Your task to perform on an android device: Open calendar and show me the first week of next month Image 0: 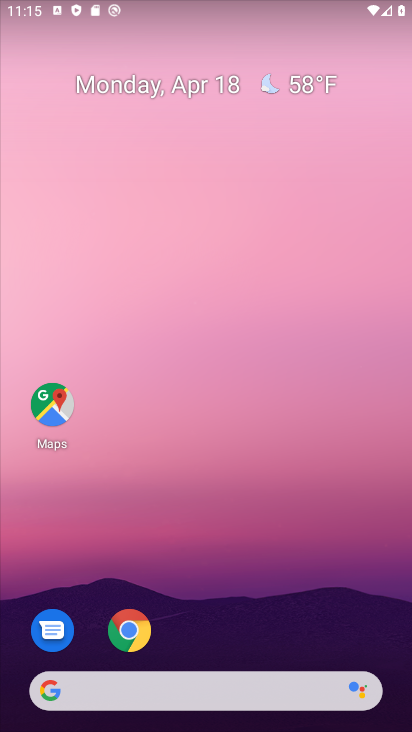
Step 0: drag from (227, 320) to (218, 156)
Your task to perform on an android device: Open calendar and show me the first week of next month Image 1: 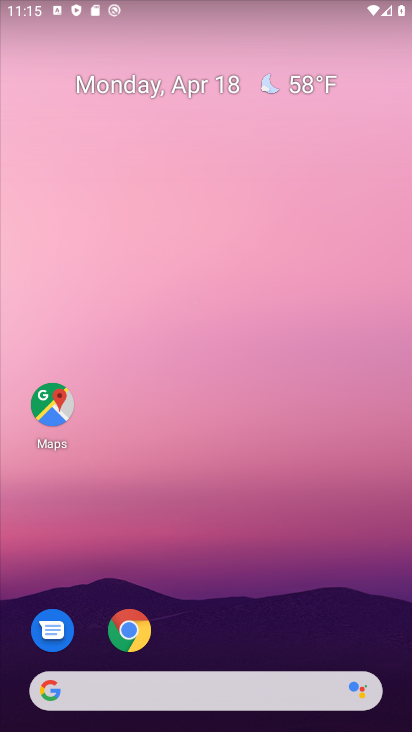
Step 1: drag from (236, 631) to (209, 184)
Your task to perform on an android device: Open calendar and show me the first week of next month Image 2: 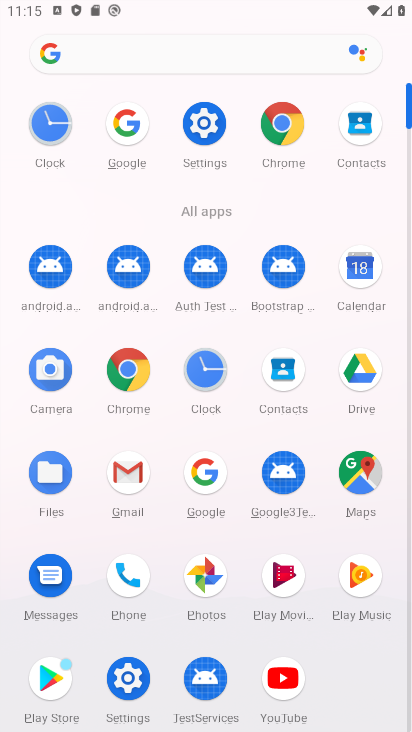
Step 2: click (358, 266)
Your task to perform on an android device: Open calendar and show me the first week of next month Image 3: 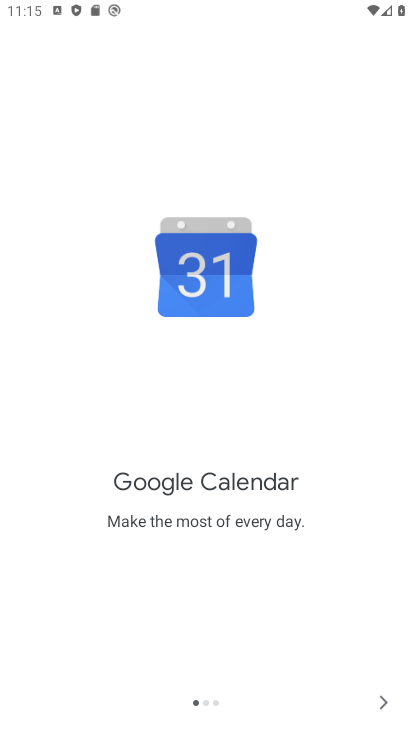
Step 3: click (383, 711)
Your task to perform on an android device: Open calendar and show me the first week of next month Image 4: 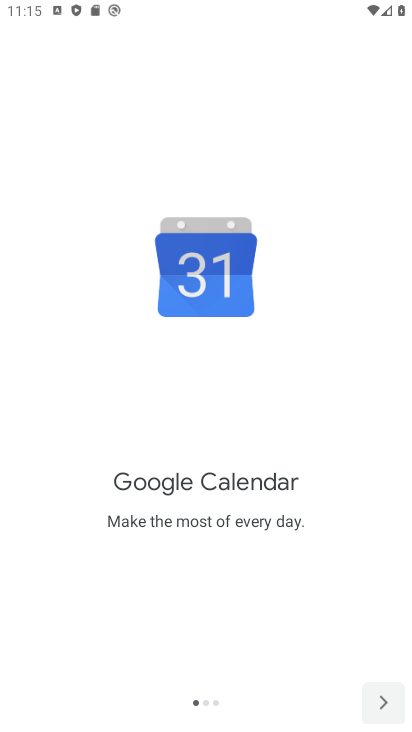
Step 4: click (383, 711)
Your task to perform on an android device: Open calendar and show me the first week of next month Image 5: 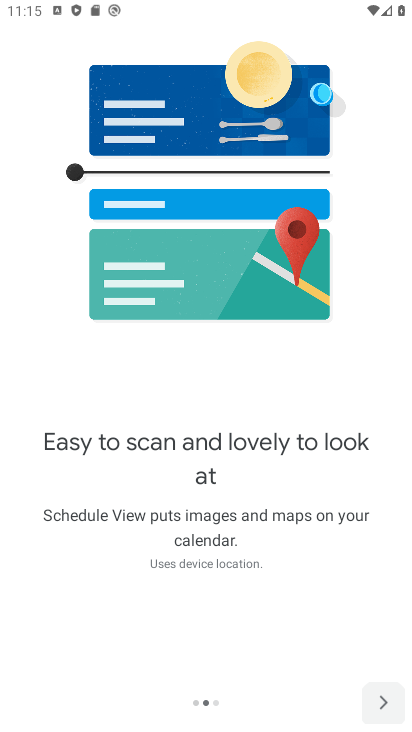
Step 5: click (383, 711)
Your task to perform on an android device: Open calendar and show me the first week of next month Image 6: 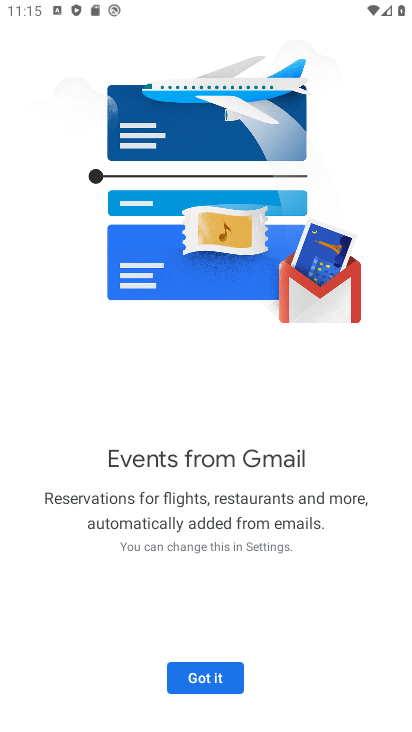
Step 6: click (167, 678)
Your task to perform on an android device: Open calendar and show me the first week of next month Image 7: 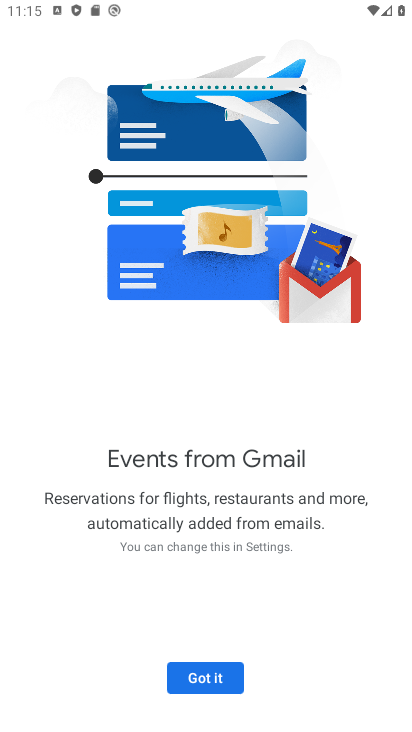
Step 7: click (200, 687)
Your task to perform on an android device: Open calendar and show me the first week of next month Image 8: 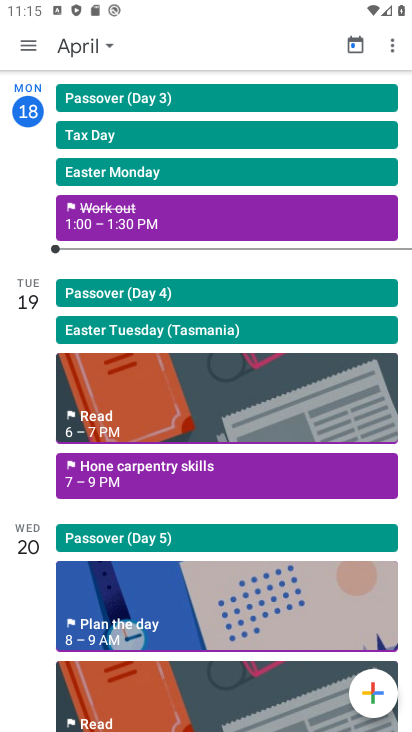
Step 8: click (103, 43)
Your task to perform on an android device: Open calendar and show me the first week of next month Image 9: 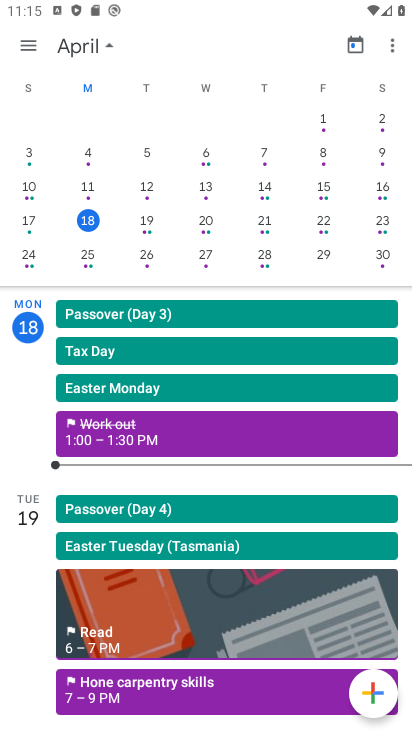
Step 9: drag from (388, 176) to (16, 183)
Your task to perform on an android device: Open calendar and show me the first week of next month Image 10: 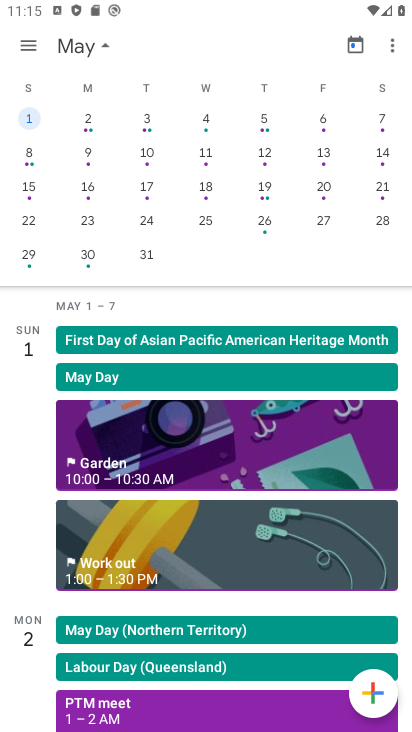
Step 10: click (29, 36)
Your task to perform on an android device: Open calendar and show me the first week of next month Image 11: 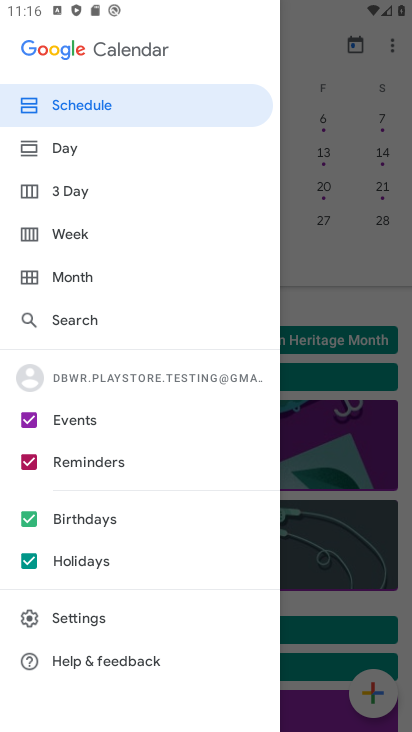
Step 11: click (77, 231)
Your task to perform on an android device: Open calendar and show me the first week of next month Image 12: 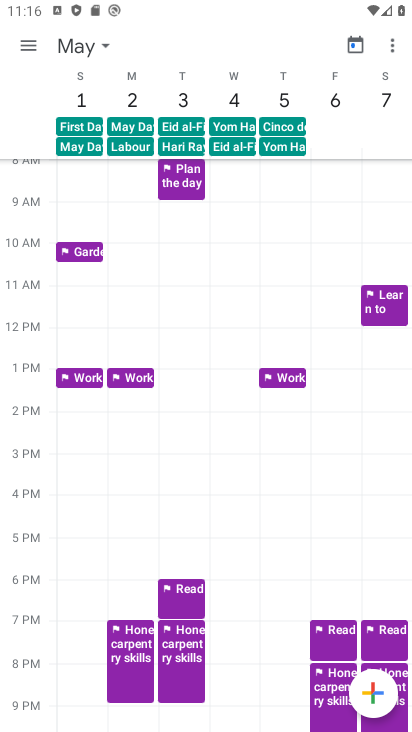
Step 12: task complete